Your task to perform on an android device: change alarm snooze length Image 0: 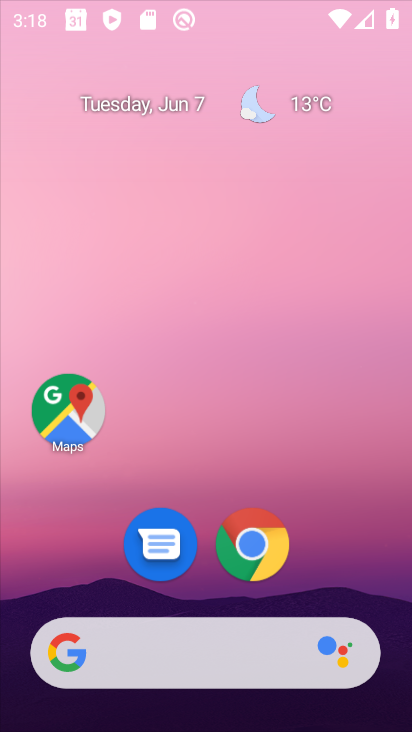
Step 0: press home button
Your task to perform on an android device: change alarm snooze length Image 1: 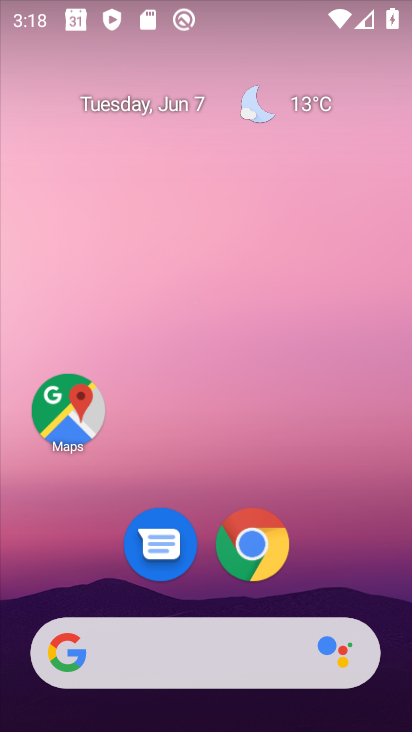
Step 1: click (206, 602)
Your task to perform on an android device: change alarm snooze length Image 2: 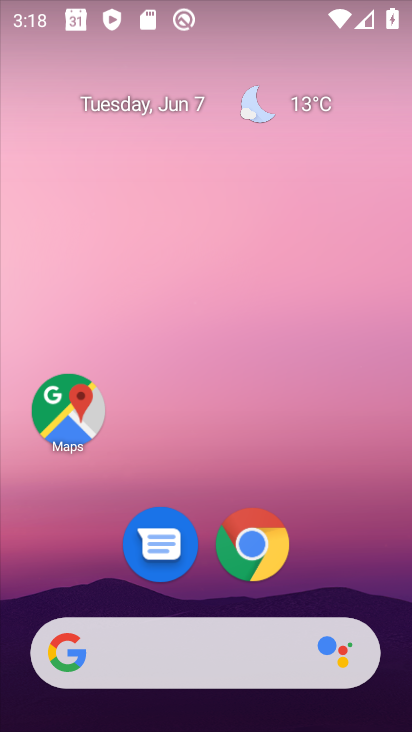
Step 2: drag from (207, 377) to (216, 213)
Your task to perform on an android device: change alarm snooze length Image 3: 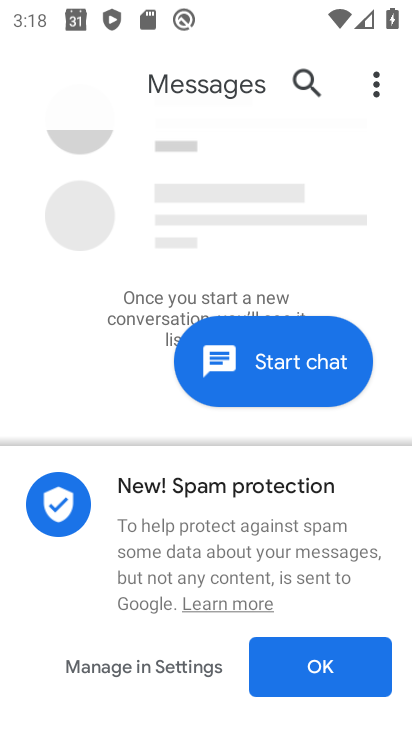
Step 3: press home button
Your task to perform on an android device: change alarm snooze length Image 4: 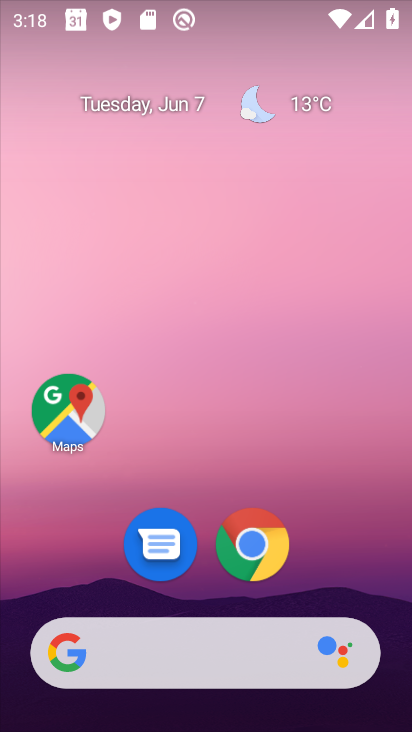
Step 4: drag from (206, 598) to (213, 106)
Your task to perform on an android device: change alarm snooze length Image 5: 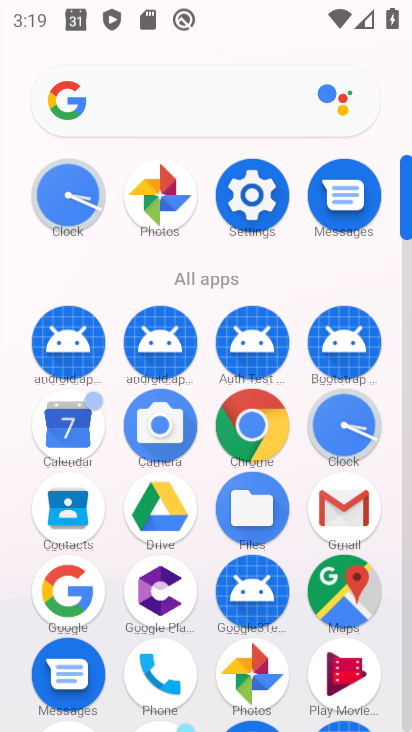
Step 5: click (343, 417)
Your task to perform on an android device: change alarm snooze length Image 6: 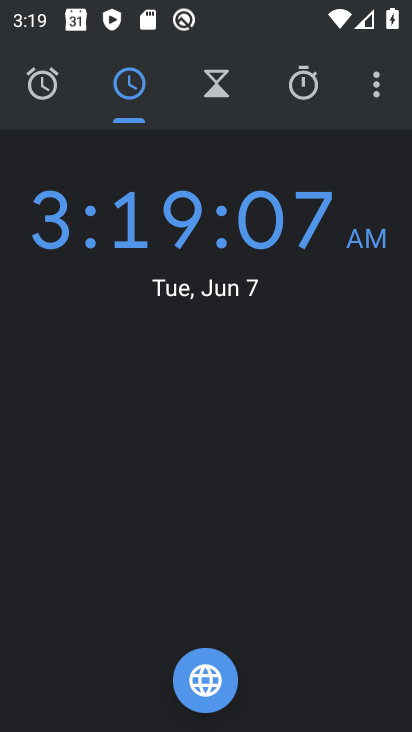
Step 6: click (373, 77)
Your task to perform on an android device: change alarm snooze length Image 7: 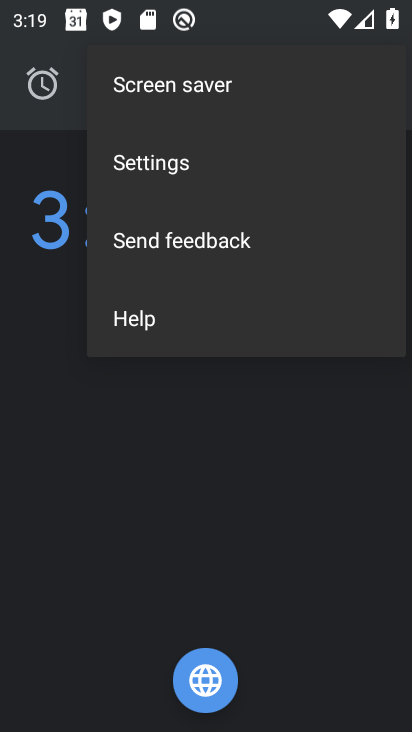
Step 7: click (205, 164)
Your task to perform on an android device: change alarm snooze length Image 8: 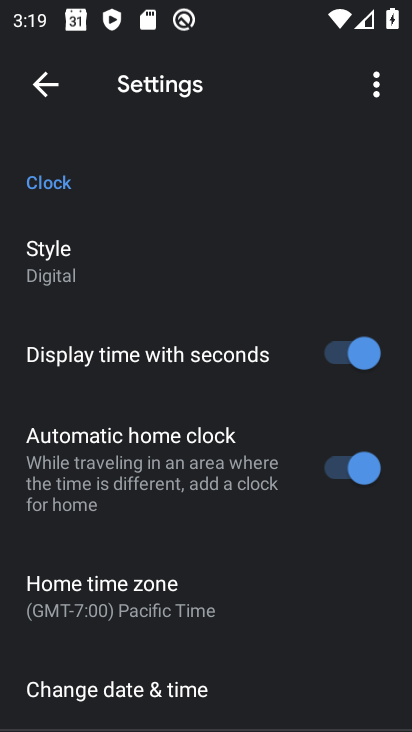
Step 8: drag from (258, 685) to (275, 256)
Your task to perform on an android device: change alarm snooze length Image 9: 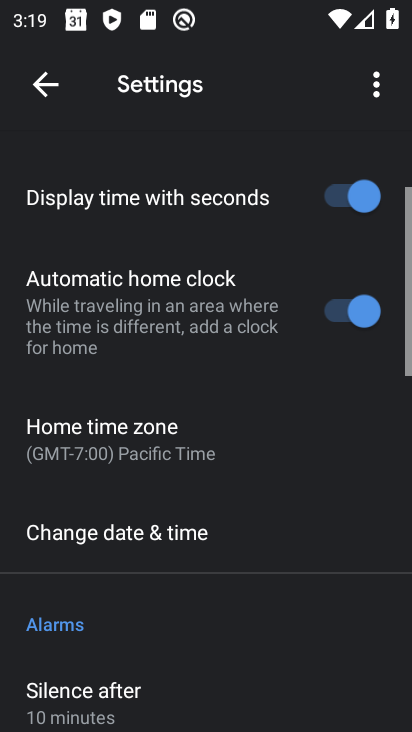
Step 9: click (281, 194)
Your task to perform on an android device: change alarm snooze length Image 10: 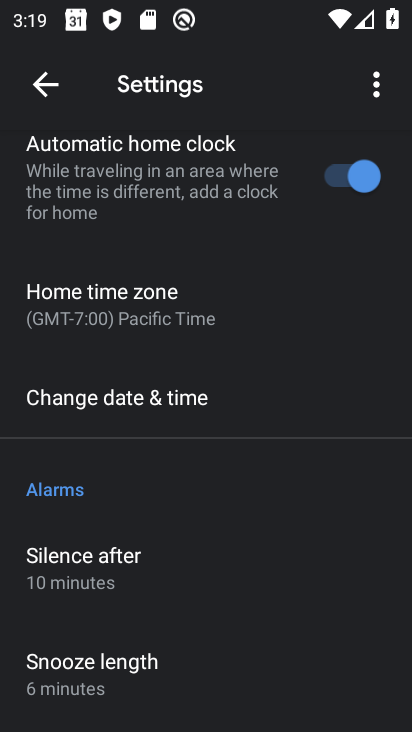
Step 10: click (127, 682)
Your task to perform on an android device: change alarm snooze length Image 11: 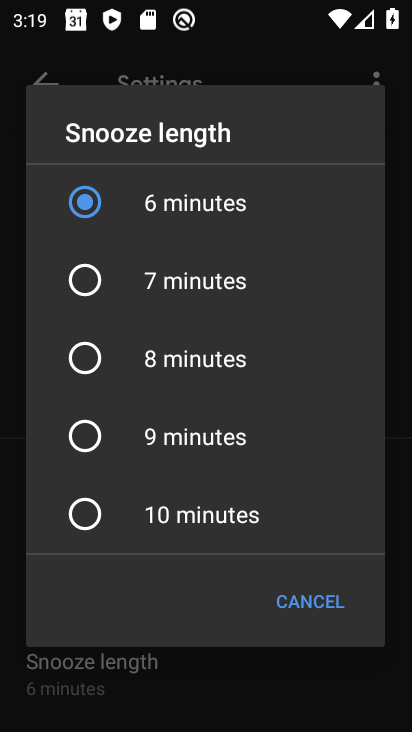
Step 11: drag from (132, 246) to (132, 546)
Your task to perform on an android device: change alarm snooze length Image 12: 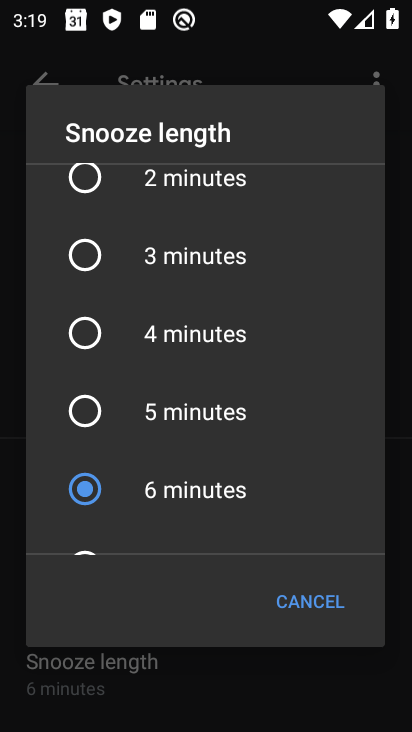
Step 12: click (83, 252)
Your task to perform on an android device: change alarm snooze length Image 13: 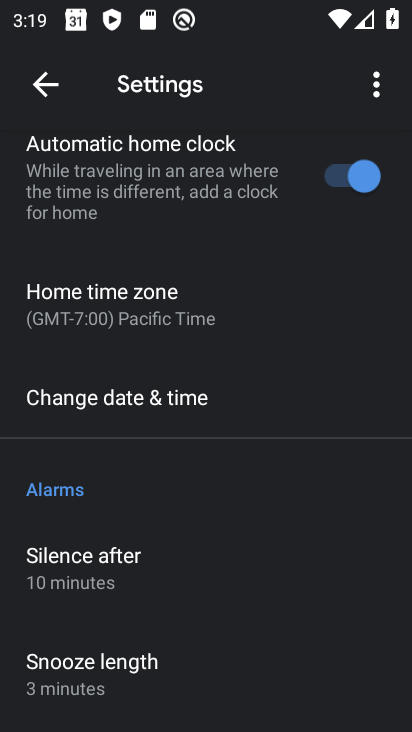
Step 13: task complete